Your task to perform on an android device: Do I have any events today? Image 0: 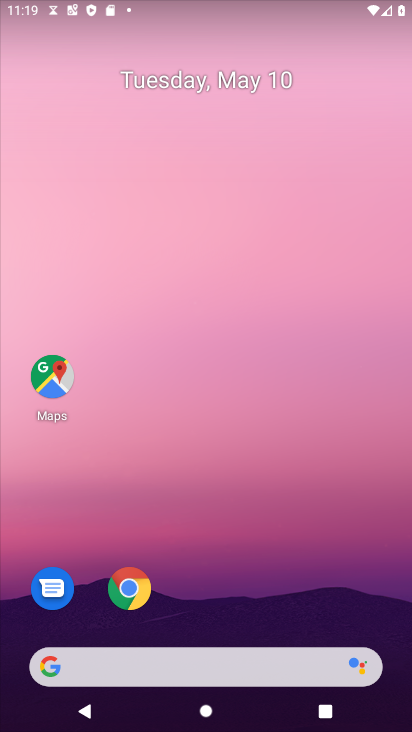
Step 0: drag from (317, 639) to (213, 200)
Your task to perform on an android device: Do I have any events today? Image 1: 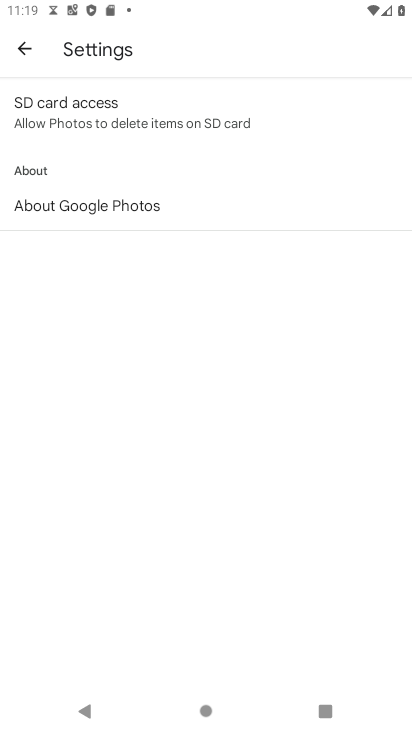
Step 1: press back button
Your task to perform on an android device: Do I have any events today? Image 2: 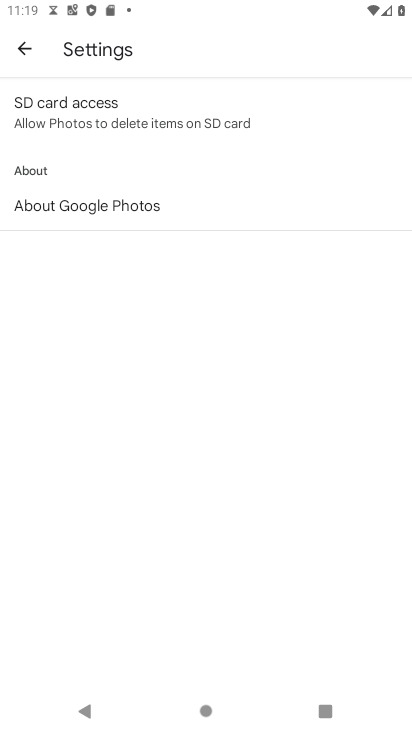
Step 2: press back button
Your task to perform on an android device: Do I have any events today? Image 3: 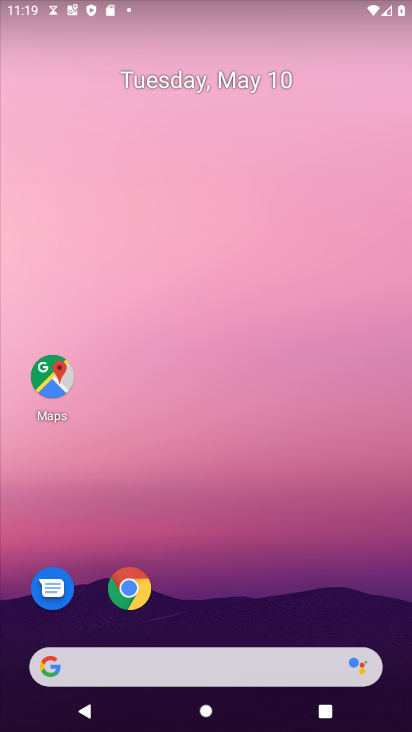
Step 3: click (93, 49)
Your task to perform on an android device: Do I have any events today? Image 4: 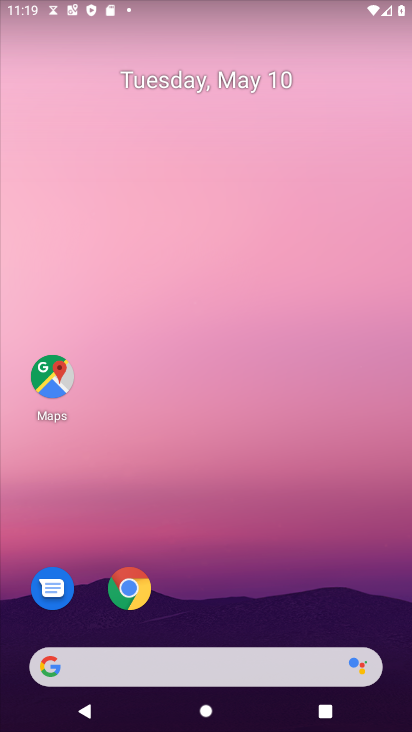
Step 4: drag from (253, 531) to (150, 7)
Your task to perform on an android device: Do I have any events today? Image 5: 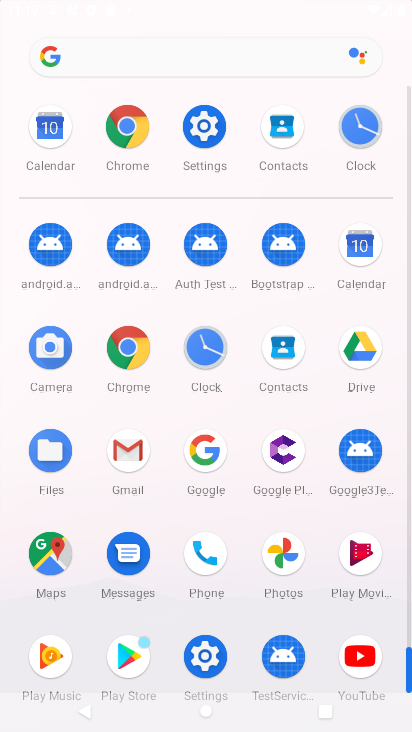
Step 5: click (153, 252)
Your task to perform on an android device: Do I have any events today? Image 6: 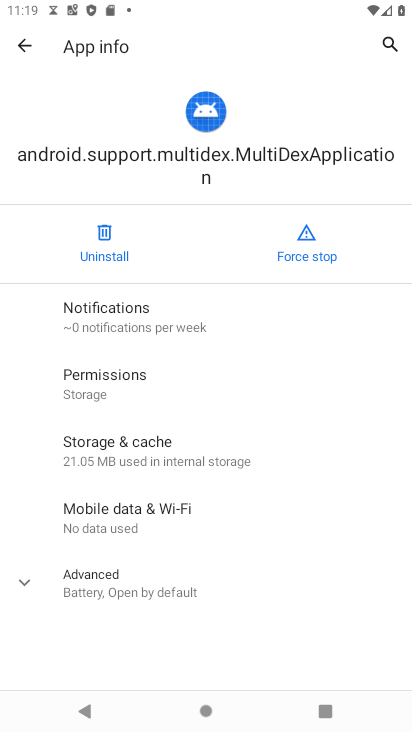
Step 6: press back button
Your task to perform on an android device: Do I have any events today? Image 7: 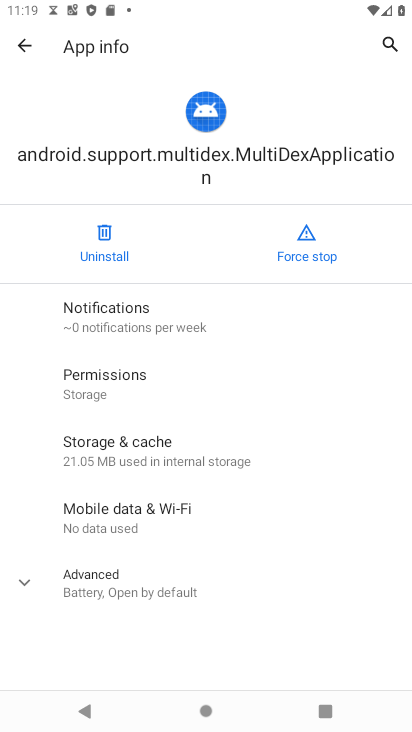
Step 7: press back button
Your task to perform on an android device: Do I have any events today? Image 8: 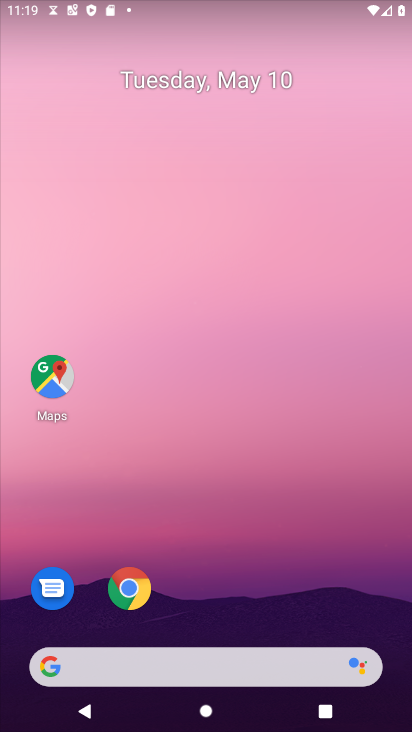
Step 8: drag from (227, 527) to (71, 73)
Your task to perform on an android device: Do I have any events today? Image 9: 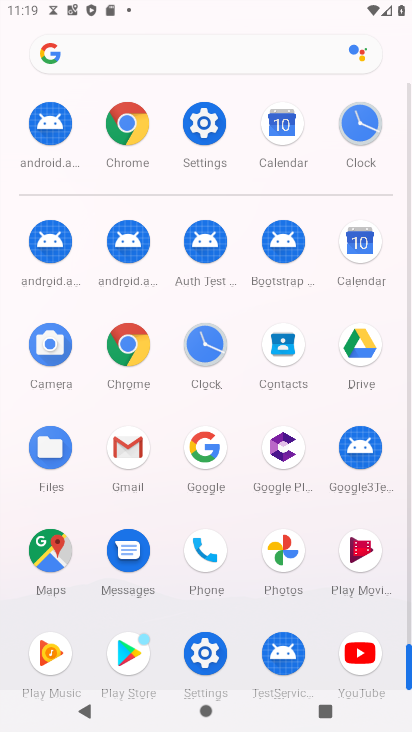
Step 9: click (280, 119)
Your task to perform on an android device: Do I have any events today? Image 10: 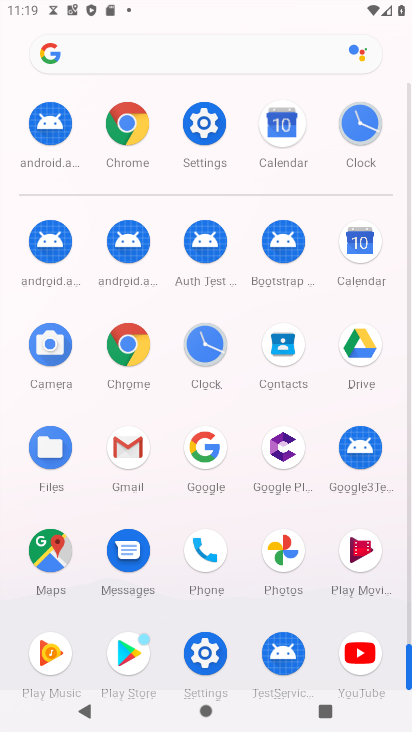
Step 10: click (280, 118)
Your task to perform on an android device: Do I have any events today? Image 11: 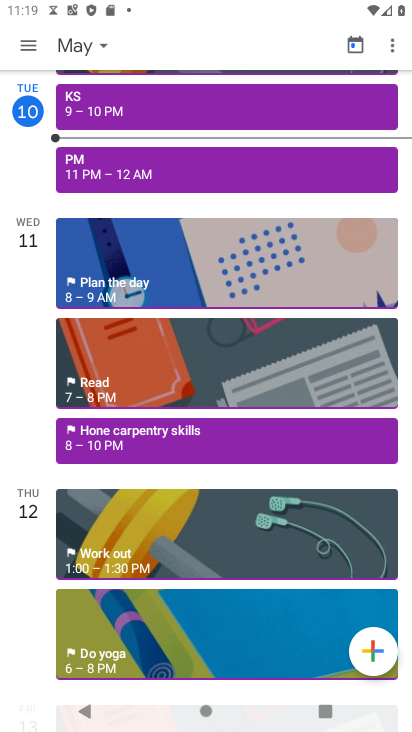
Step 11: drag from (222, 277) to (226, 537)
Your task to perform on an android device: Do I have any events today? Image 12: 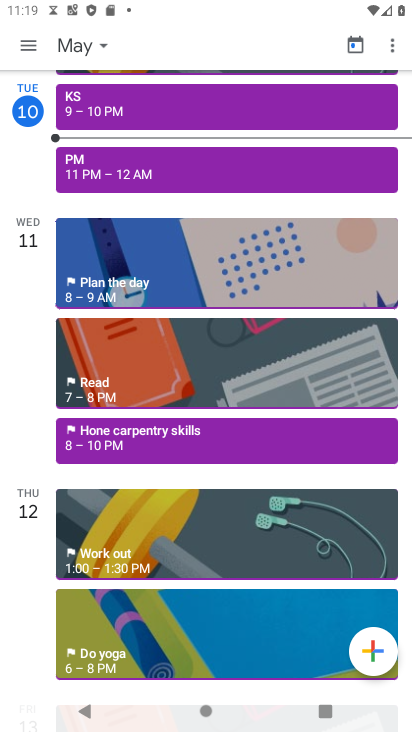
Step 12: drag from (217, 489) to (116, 475)
Your task to perform on an android device: Do I have any events today? Image 13: 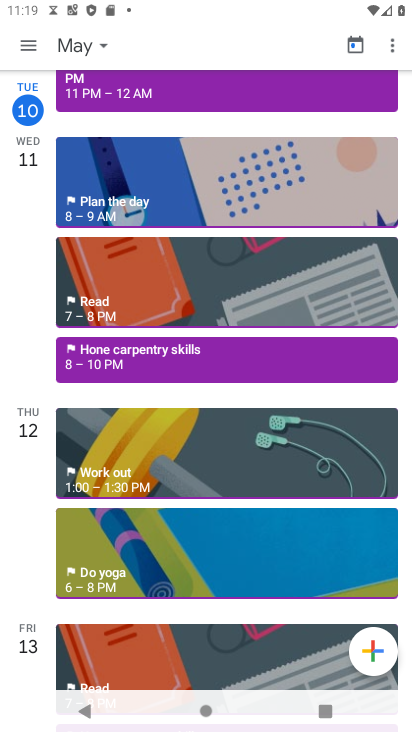
Step 13: click (67, 490)
Your task to perform on an android device: Do I have any events today? Image 14: 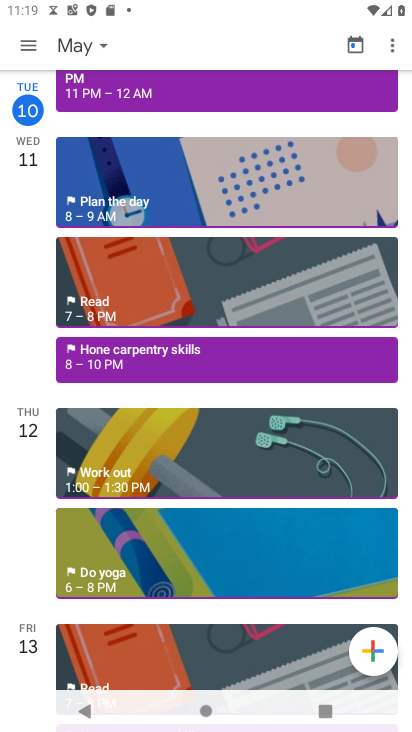
Step 14: drag from (114, 295) to (92, 528)
Your task to perform on an android device: Do I have any events today? Image 15: 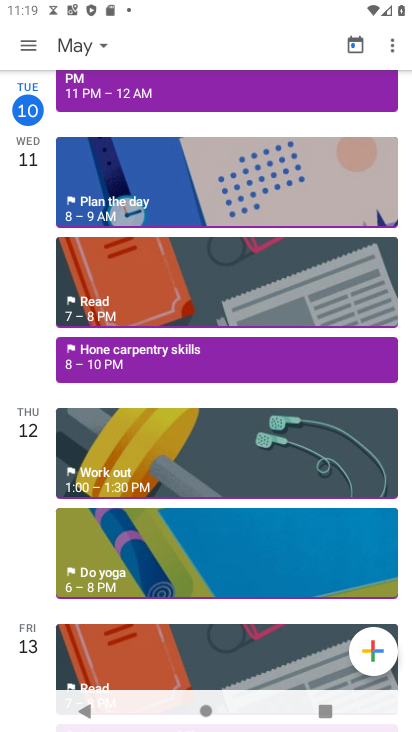
Step 15: click (104, 87)
Your task to perform on an android device: Do I have any events today? Image 16: 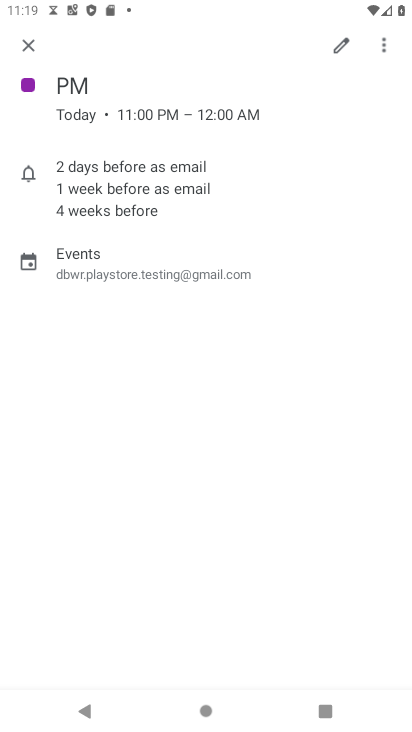
Step 16: click (22, 38)
Your task to perform on an android device: Do I have any events today? Image 17: 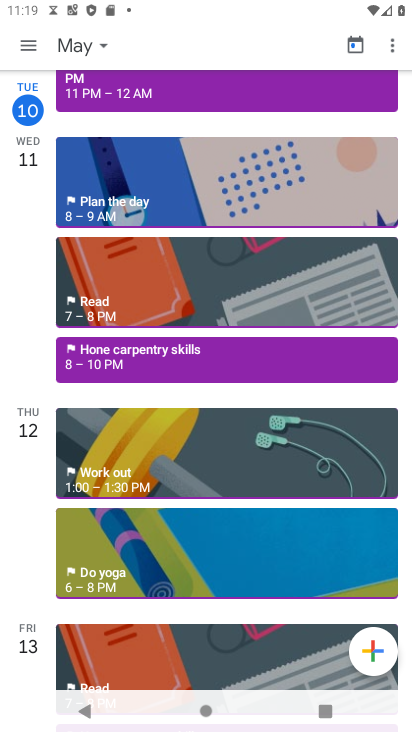
Step 17: drag from (164, 145) to (176, 568)
Your task to perform on an android device: Do I have any events today? Image 18: 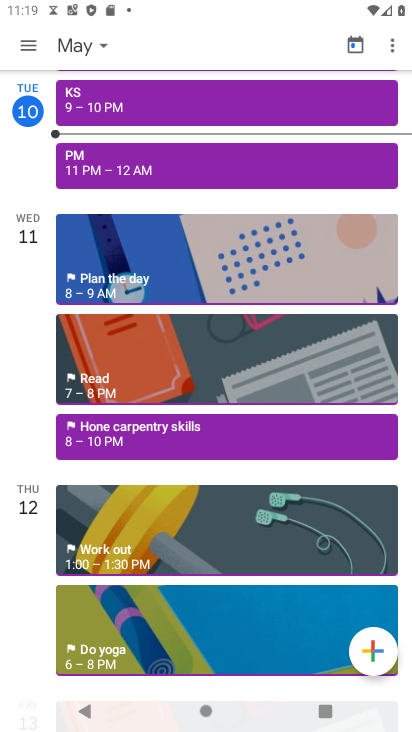
Step 18: click (114, 101)
Your task to perform on an android device: Do I have any events today? Image 19: 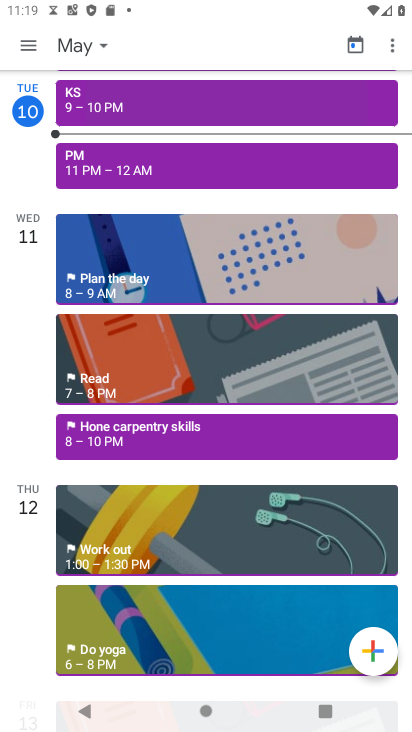
Step 19: click (119, 106)
Your task to perform on an android device: Do I have any events today? Image 20: 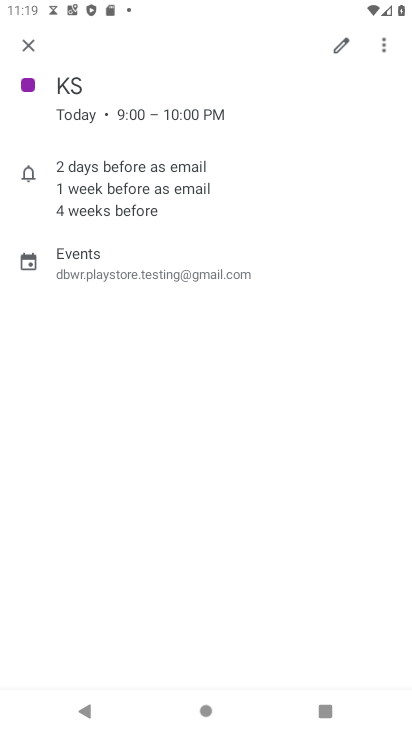
Step 20: task complete